Your task to perform on an android device: toggle data saver in the chrome app Image 0: 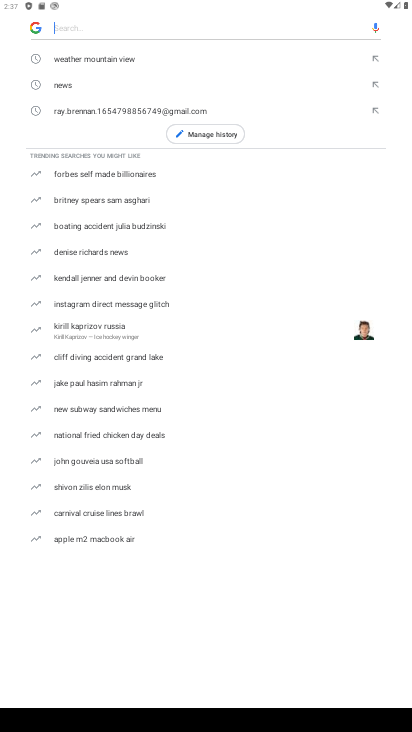
Step 0: press home button
Your task to perform on an android device: toggle data saver in the chrome app Image 1: 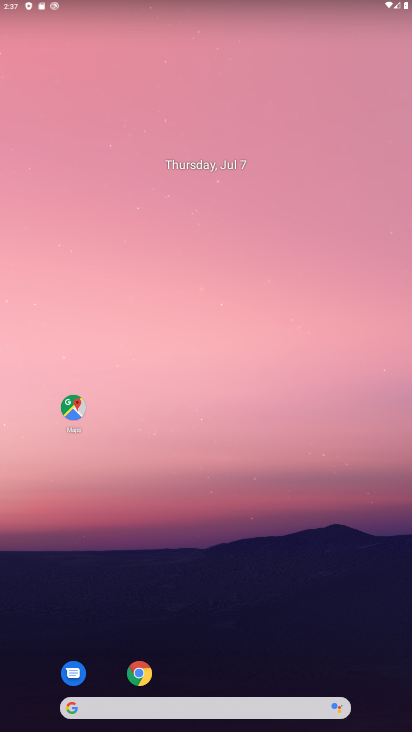
Step 1: drag from (205, 662) to (260, 132)
Your task to perform on an android device: toggle data saver in the chrome app Image 2: 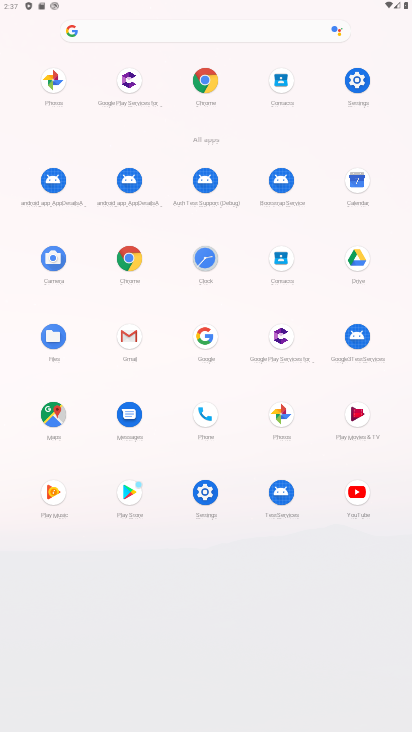
Step 2: click (115, 257)
Your task to perform on an android device: toggle data saver in the chrome app Image 3: 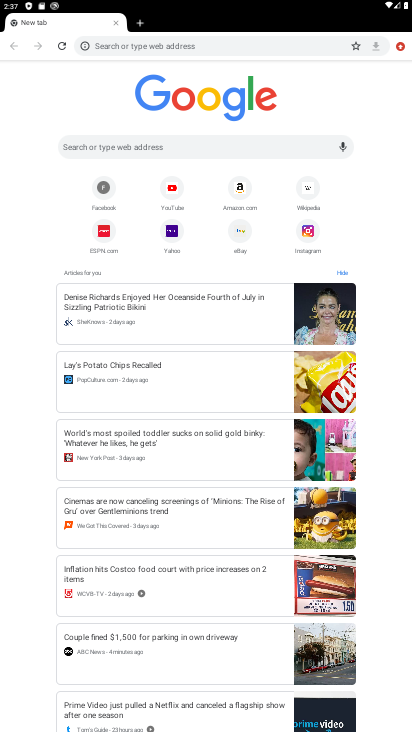
Step 3: click (400, 42)
Your task to perform on an android device: toggle data saver in the chrome app Image 4: 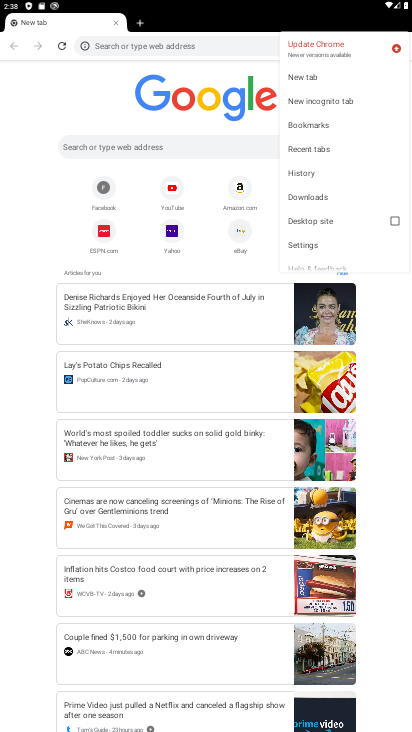
Step 4: click (307, 244)
Your task to perform on an android device: toggle data saver in the chrome app Image 5: 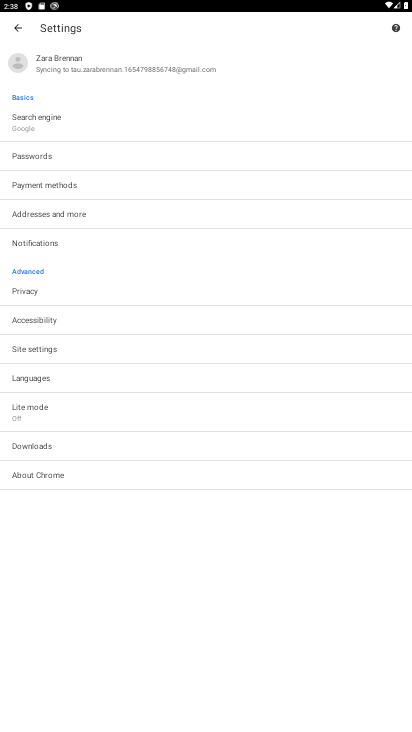
Step 5: click (48, 410)
Your task to perform on an android device: toggle data saver in the chrome app Image 6: 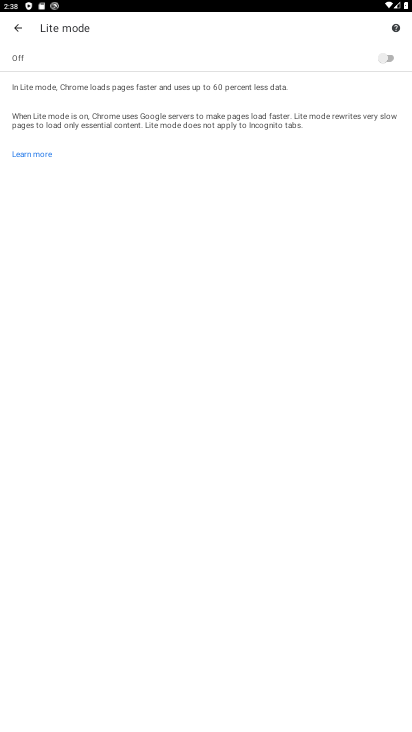
Step 6: click (379, 60)
Your task to perform on an android device: toggle data saver in the chrome app Image 7: 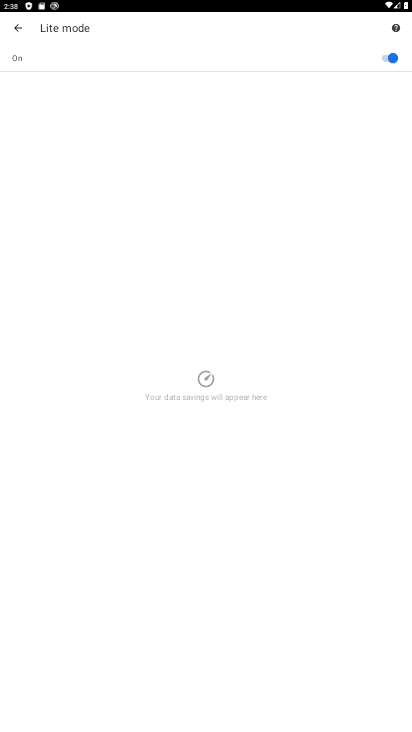
Step 7: task complete